Your task to perform on an android device: Search for hotels in Mexico city Image 0: 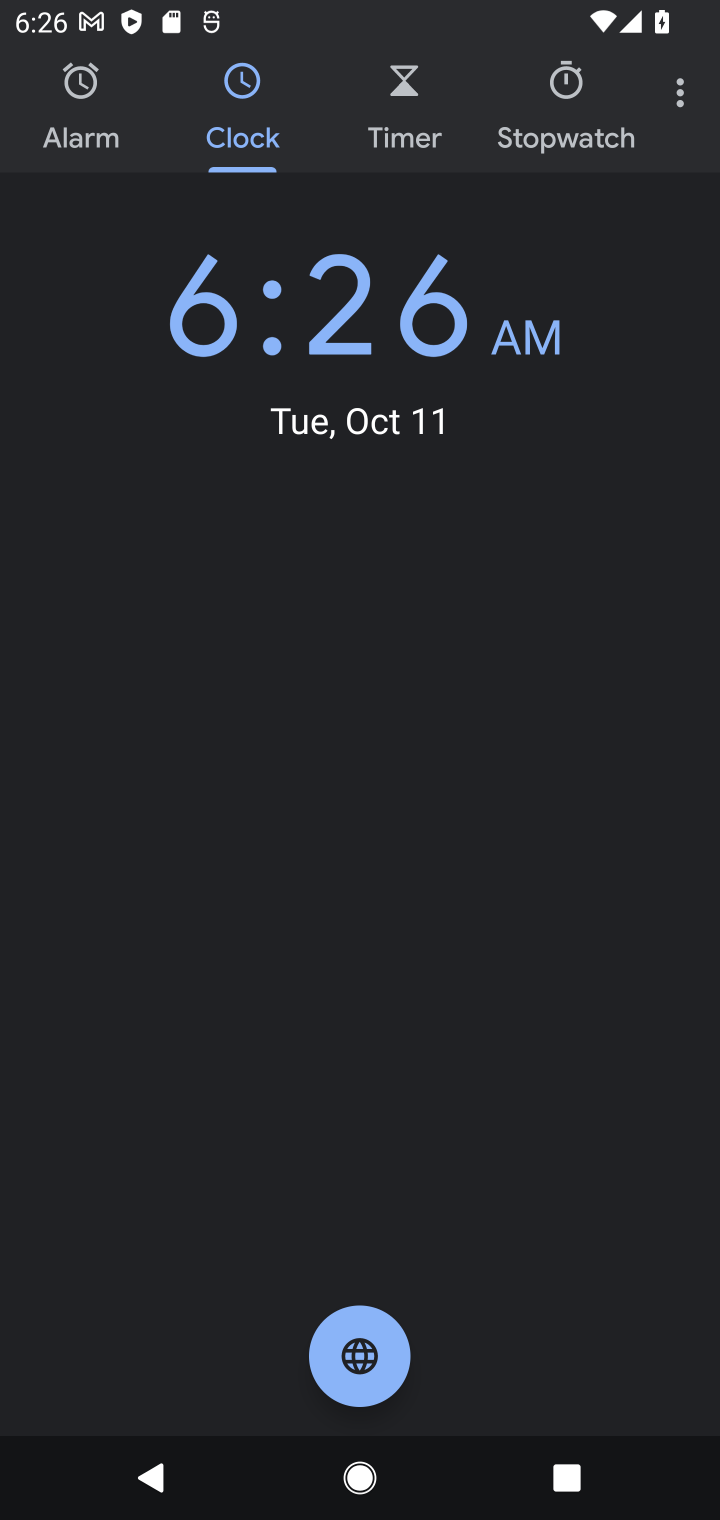
Step 0: click (386, 91)
Your task to perform on an android device: Search for hotels in Mexico city Image 1: 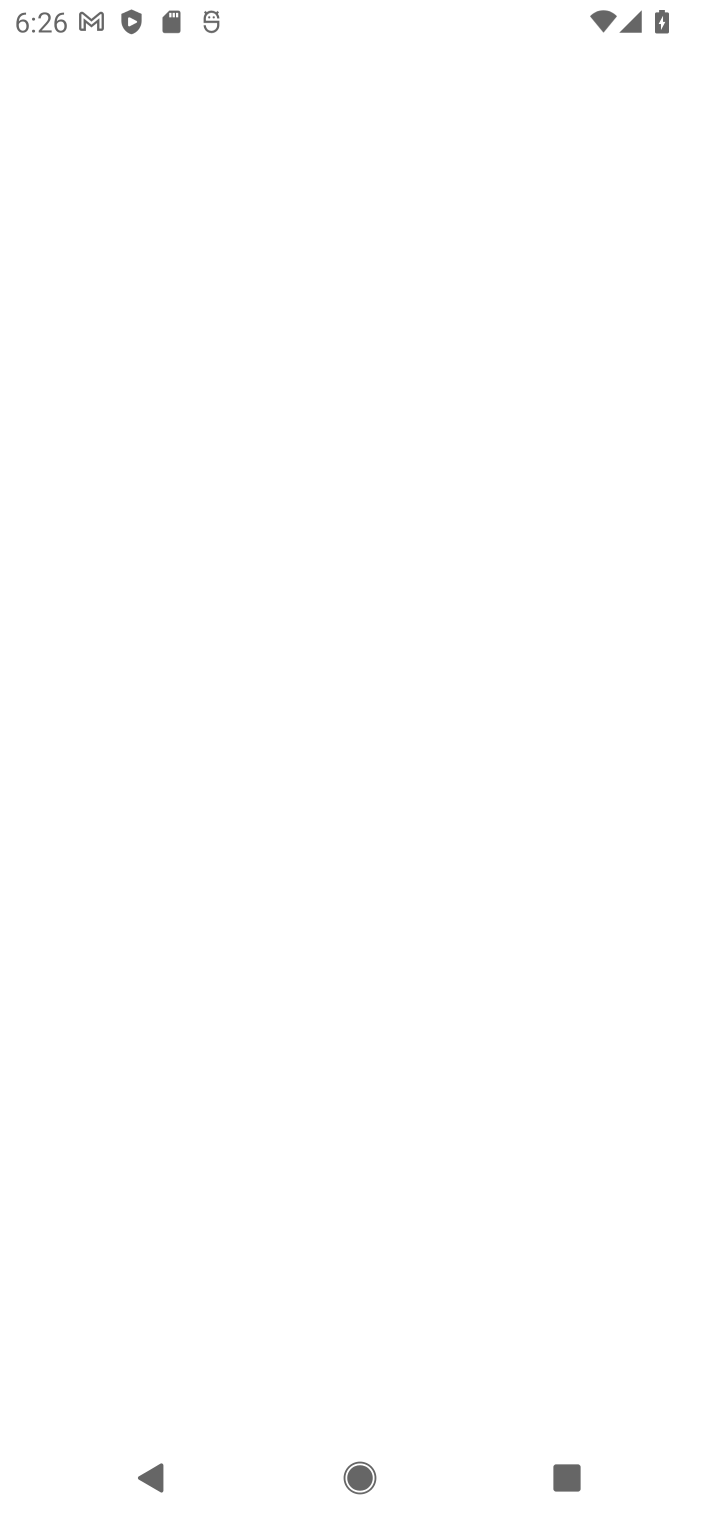
Step 1: press home button
Your task to perform on an android device: Search for hotels in Mexico city Image 2: 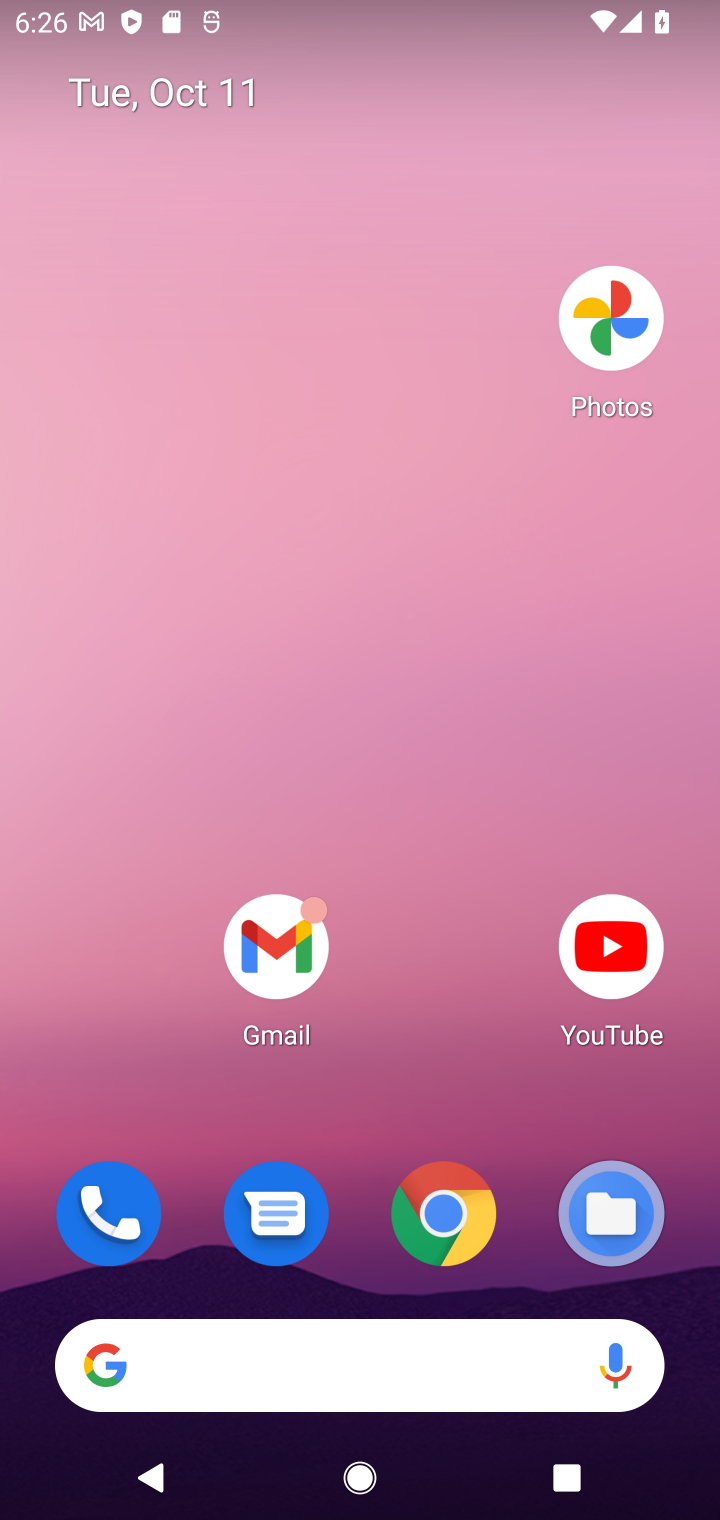
Step 2: drag from (409, 1268) to (415, 92)
Your task to perform on an android device: Search for hotels in Mexico city Image 3: 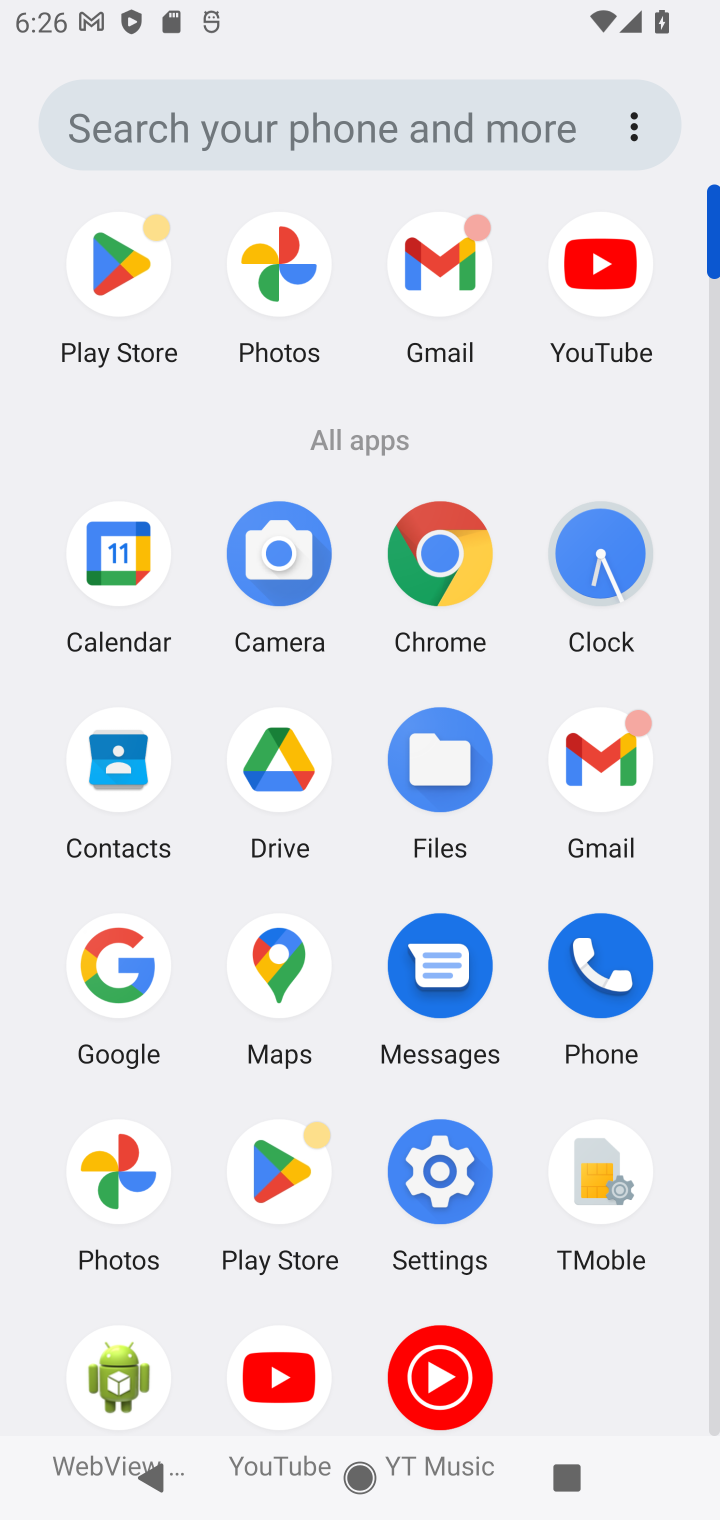
Step 3: click (454, 553)
Your task to perform on an android device: Search for hotels in Mexico city Image 4: 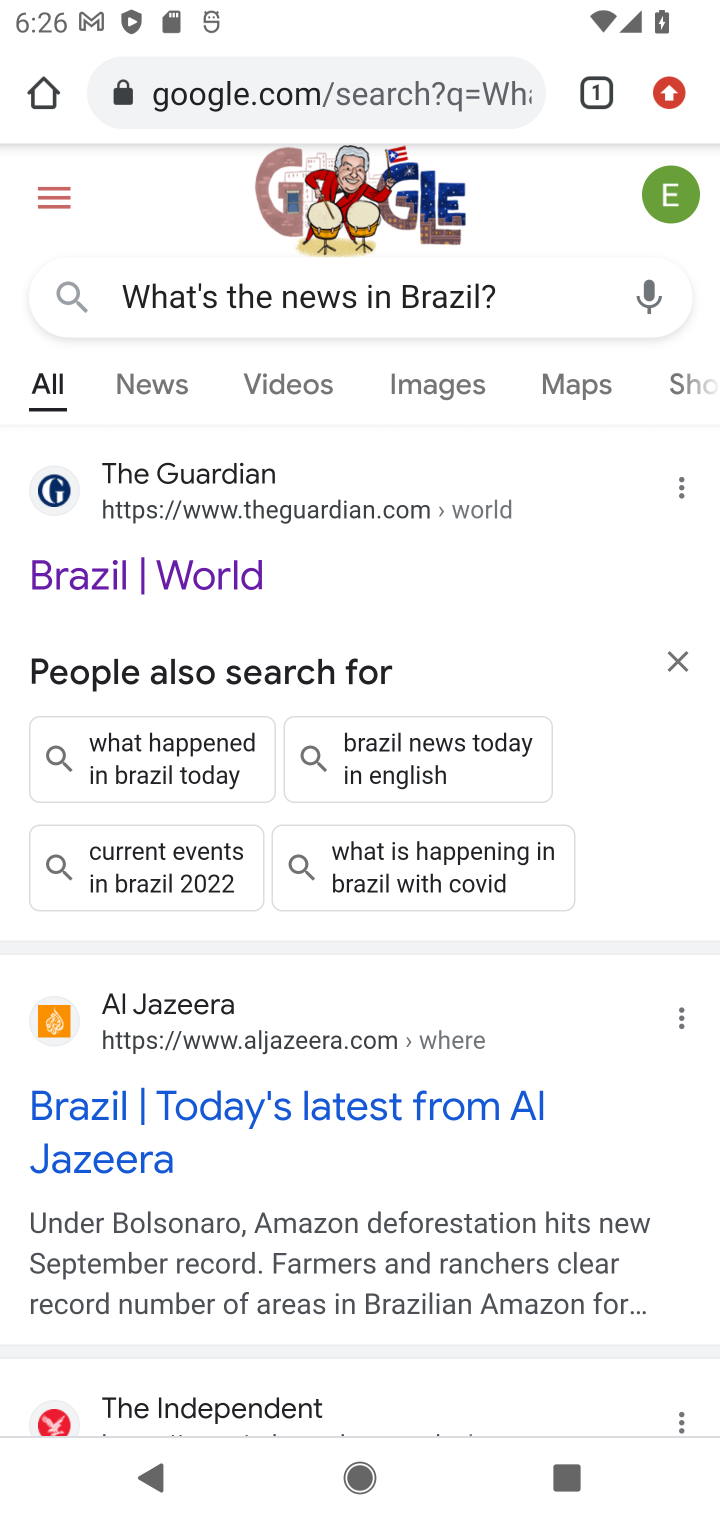
Step 4: click (411, 89)
Your task to perform on an android device: Search for hotels in Mexico city Image 5: 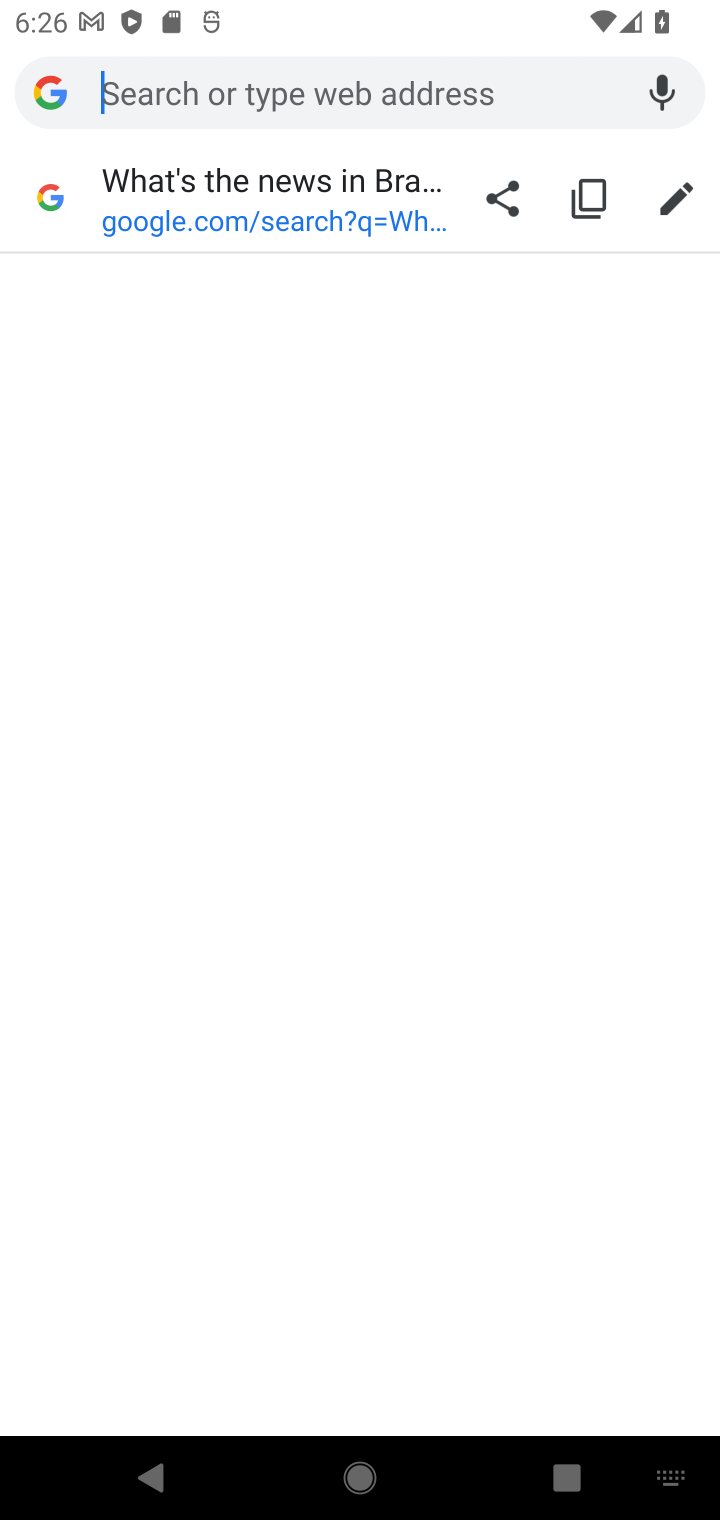
Step 5: type " hotels in Mexico city"
Your task to perform on an android device: Search for hotels in Mexico city Image 6: 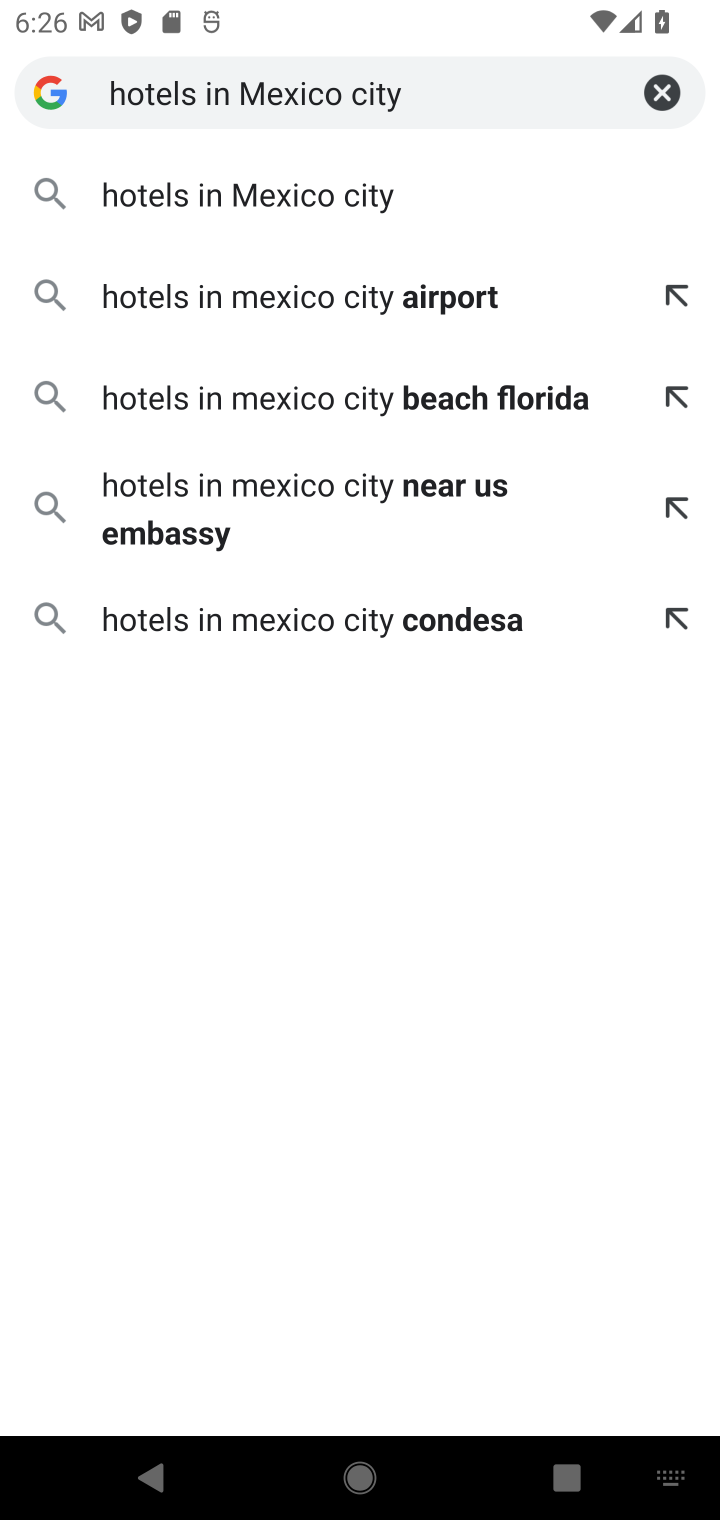
Step 6: press enter
Your task to perform on an android device: Search for hotels in Mexico city Image 7: 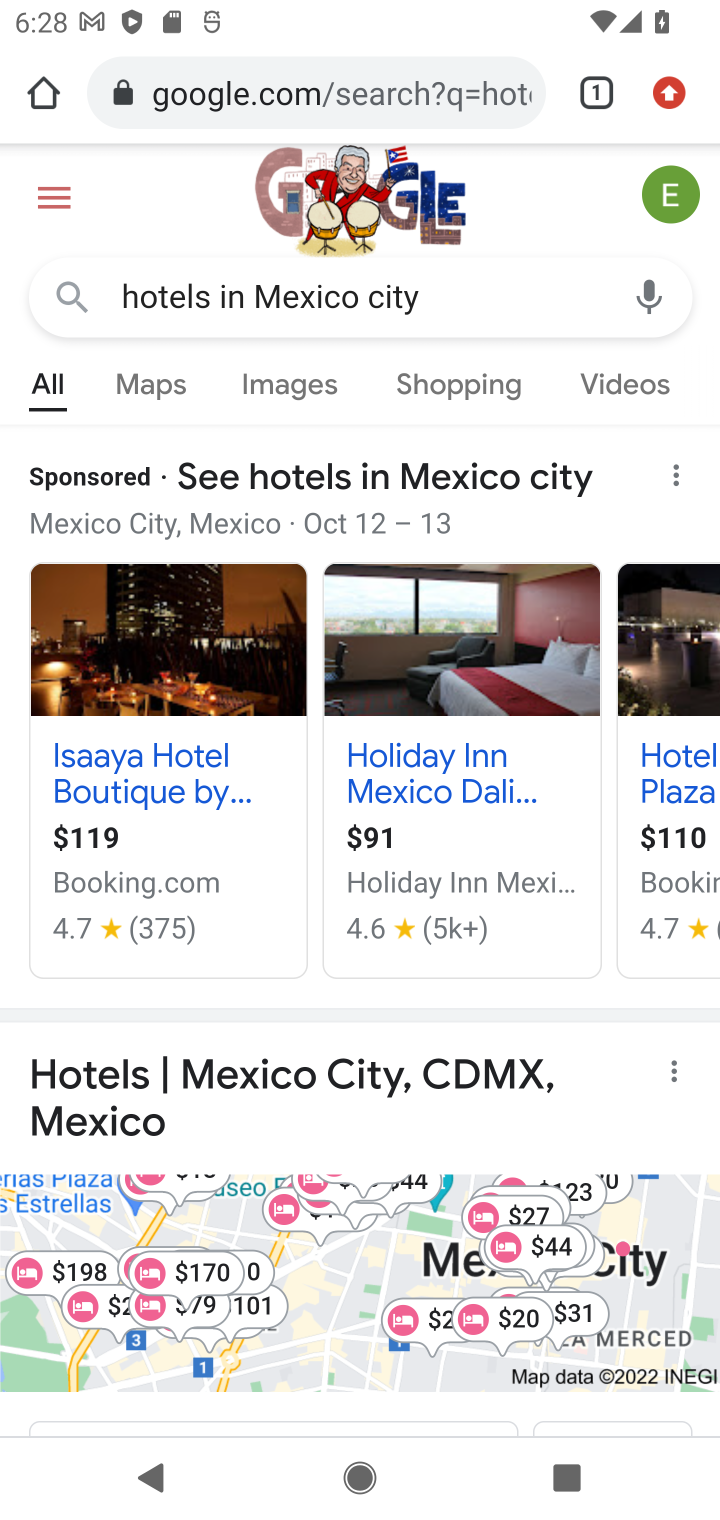
Step 7: task complete